Your task to perform on an android device: turn on location history Image 0: 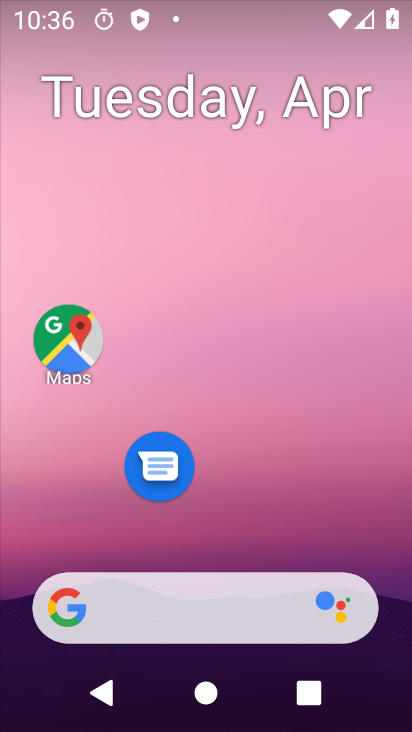
Step 0: drag from (321, 516) to (272, 173)
Your task to perform on an android device: turn on location history Image 1: 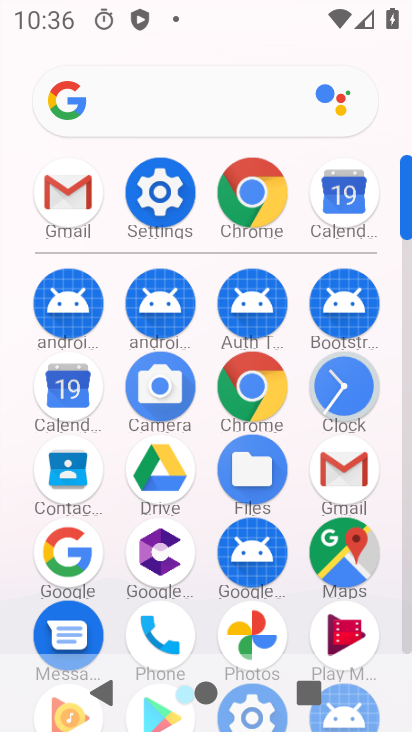
Step 1: click (166, 188)
Your task to perform on an android device: turn on location history Image 2: 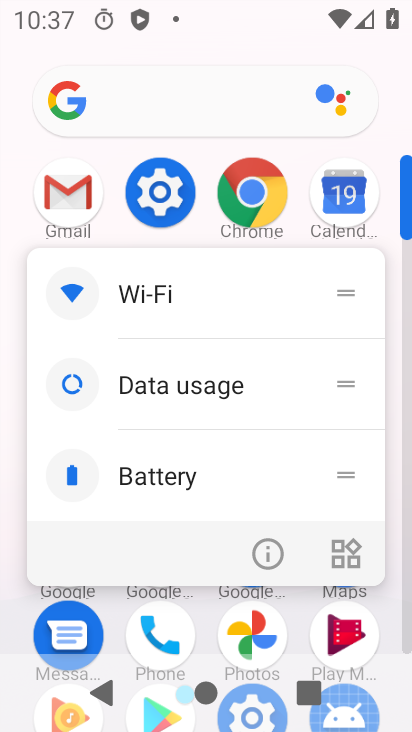
Step 2: click (262, 196)
Your task to perform on an android device: turn on location history Image 3: 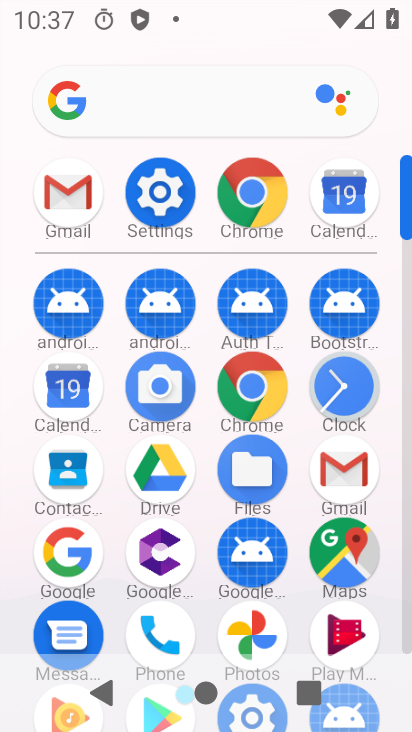
Step 3: click (266, 415)
Your task to perform on an android device: turn on location history Image 4: 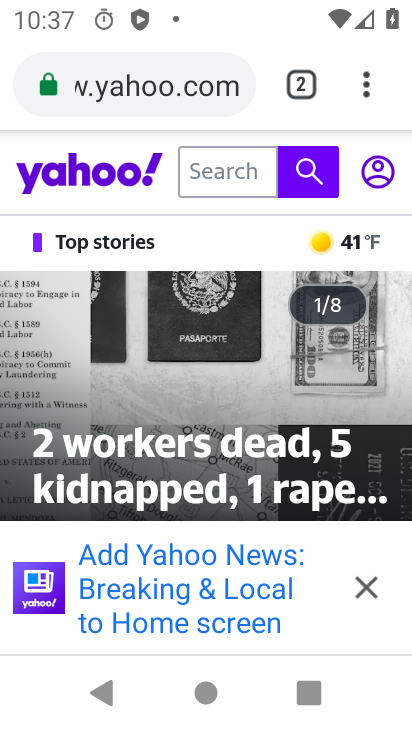
Step 4: press home button
Your task to perform on an android device: turn on location history Image 5: 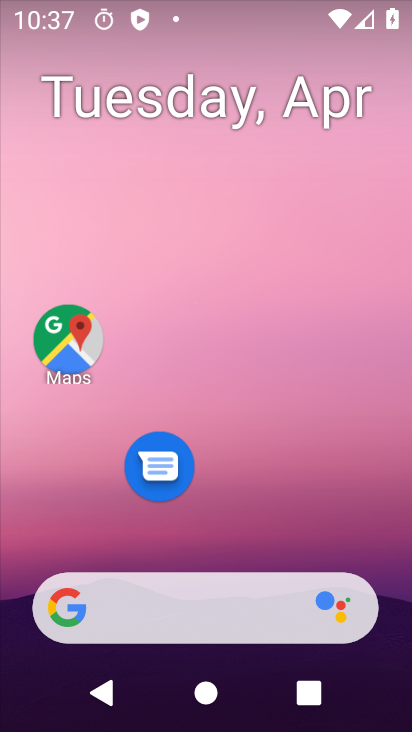
Step 5: drag from (278, 521) to (261, 136)
Your task to perform on an android device: turn on location history Image 6: 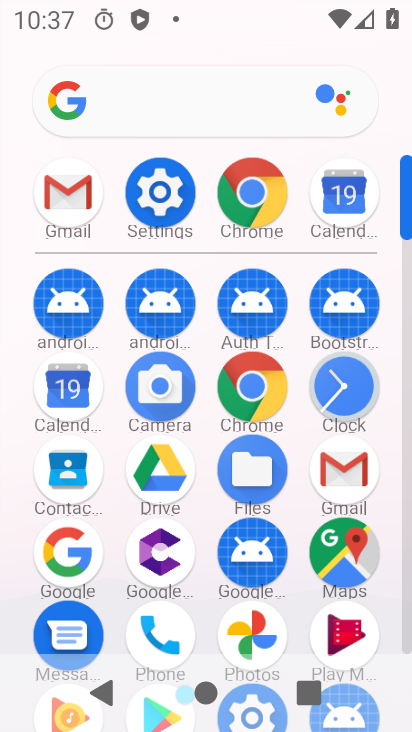
Step 6: click (153, 212)
Your task to perform on an android device: turn on location history Image 7: 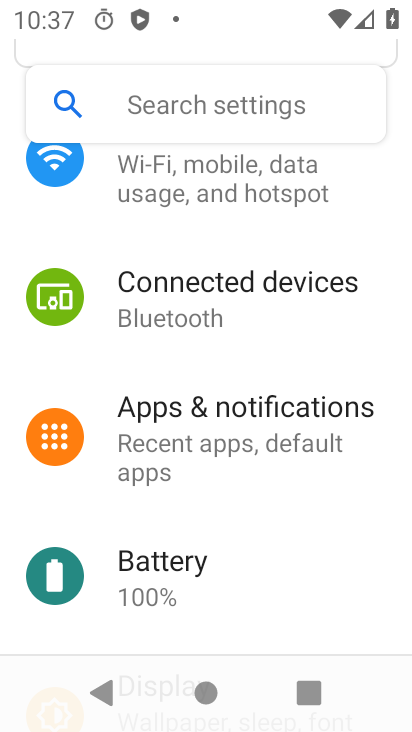
Step 7: drag from (272, 575) to (278, 310)
Your task to perform on an android device: turn on location history Image 8: 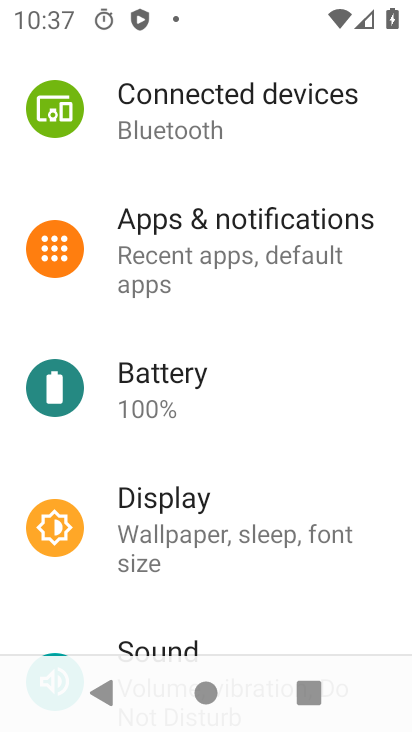
Step 8: drag from (241, 561) to (257, 216)
Your task to perform on an android device: turn on location history Image 9: 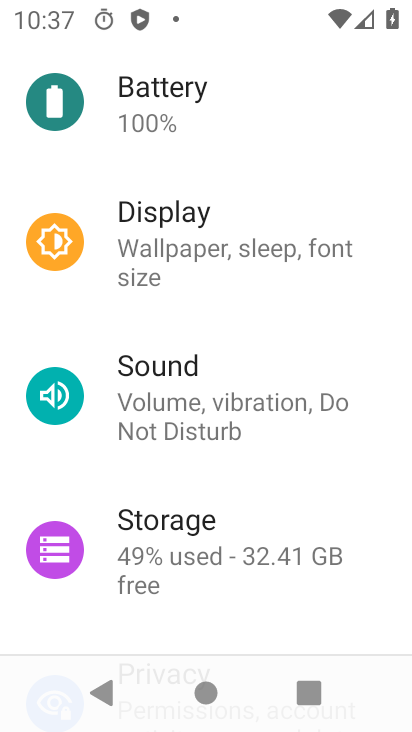
Step 9: drag from (267, 490) to (311, 204)
Your task to perform on an android device: turn on location history Image 10: 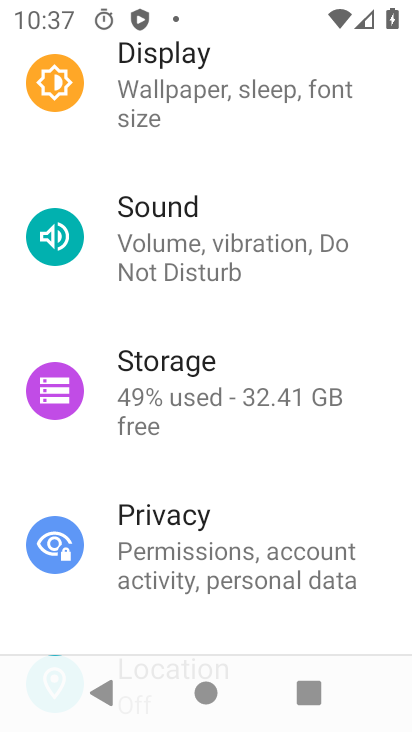
Step 10: drag from (277, 486) to (319, 191)
Your task to perform on an android device: turn on location history Image 11: 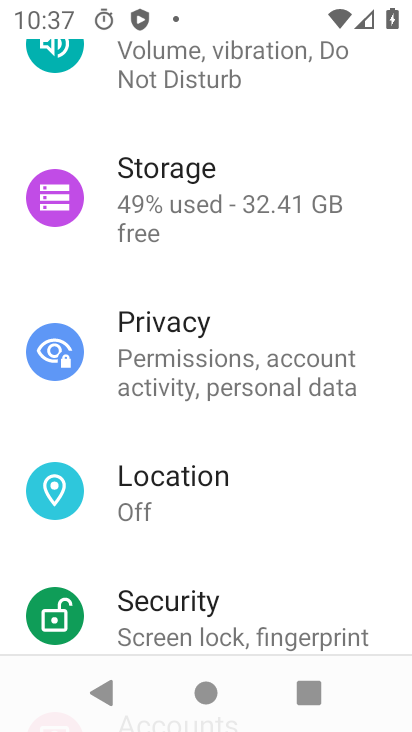
Step 11: drag from (279, 527) to (299, 262)
Your task to perform on an android device: turn on location history Image 12: 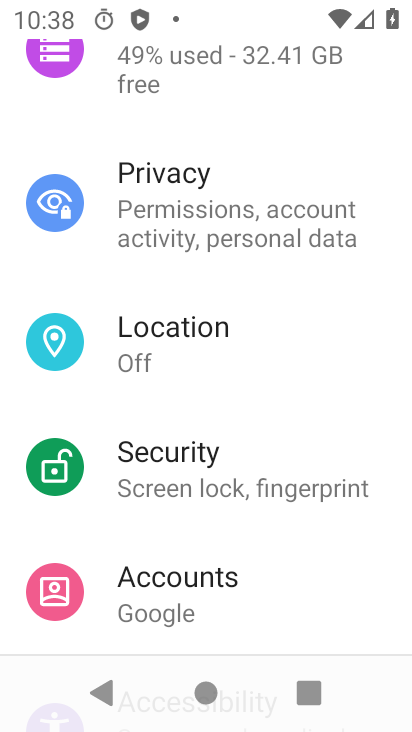
Step 12: click (272, 330)
Your task to perform on an android device: turn on location history Image 13: 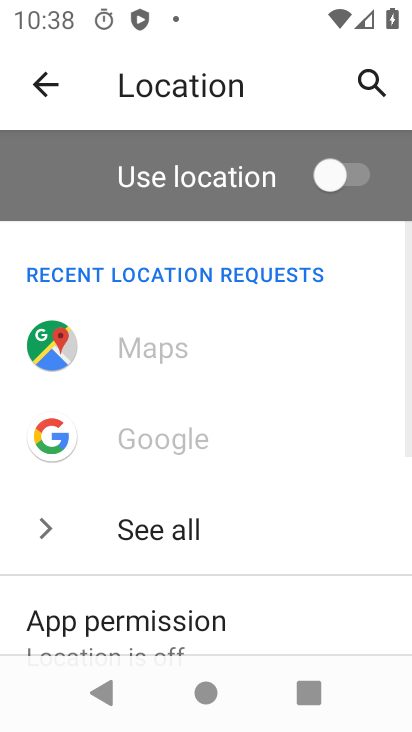
Step 13: click (335, 172)
Your task to perform on an android device: turn on location history Image 14: 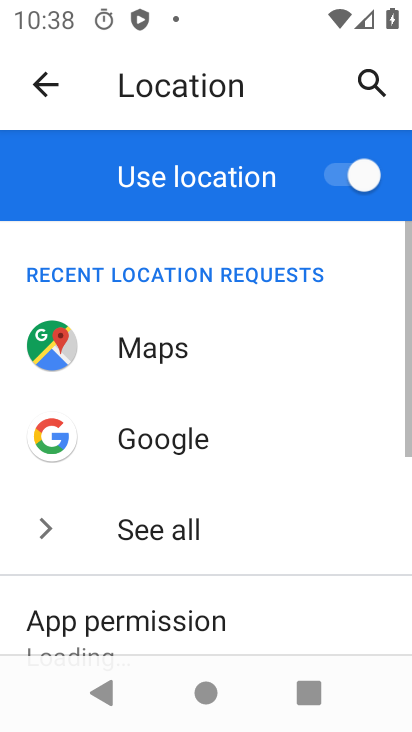
Step 14: task complete